Your task to perform on an android device: Do I have any events tomorrow? Image 0: 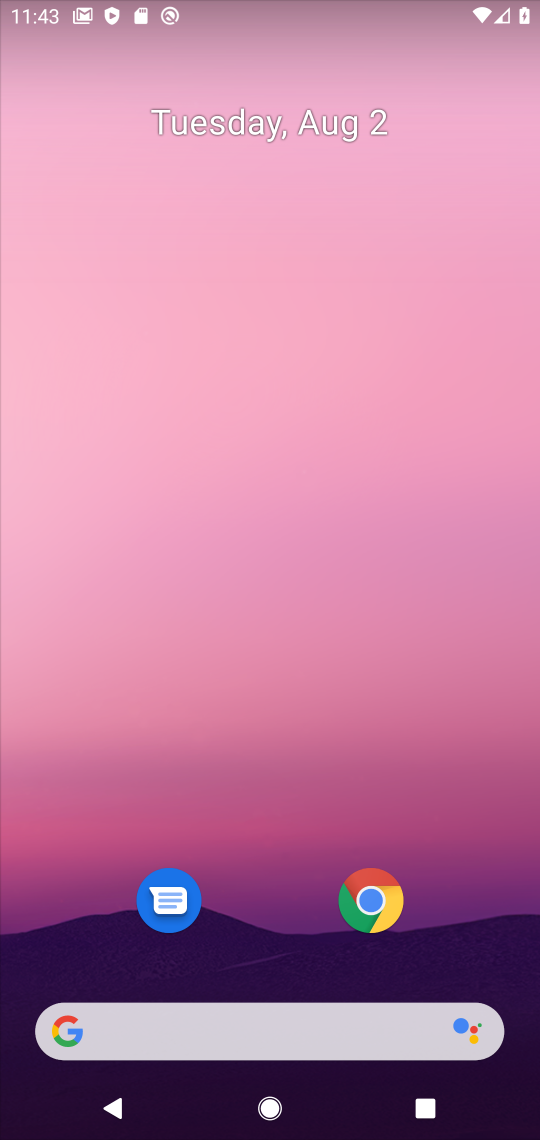
Step 0: drag from (231, 843) to (308, 83)
Your task to perform on an android device: Do I have any events tomorrow? Image 1: 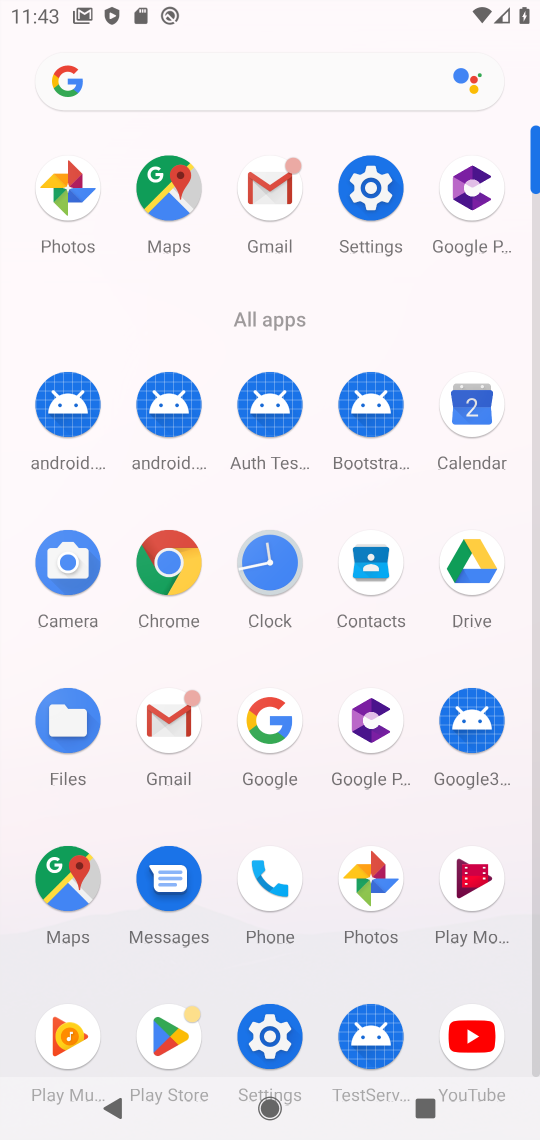
Step 1: click (482, 405)
Your task to perform on an android device: Do I have any events tomorrow? Image 2: 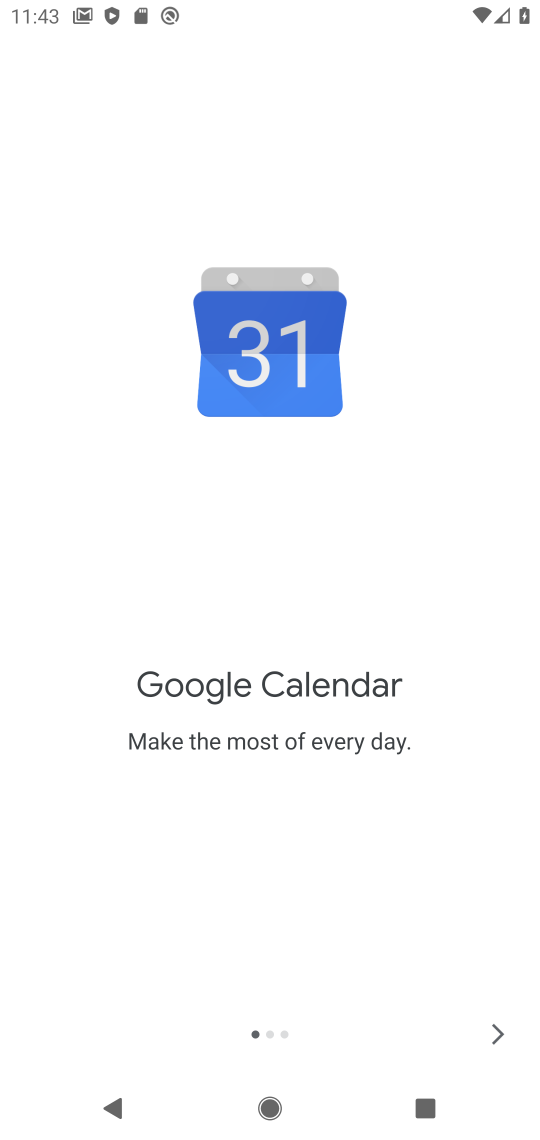
Step 2: click (513, 1041)
Your task to perform on an android device: Do I have any events tomorrow? Image 3: 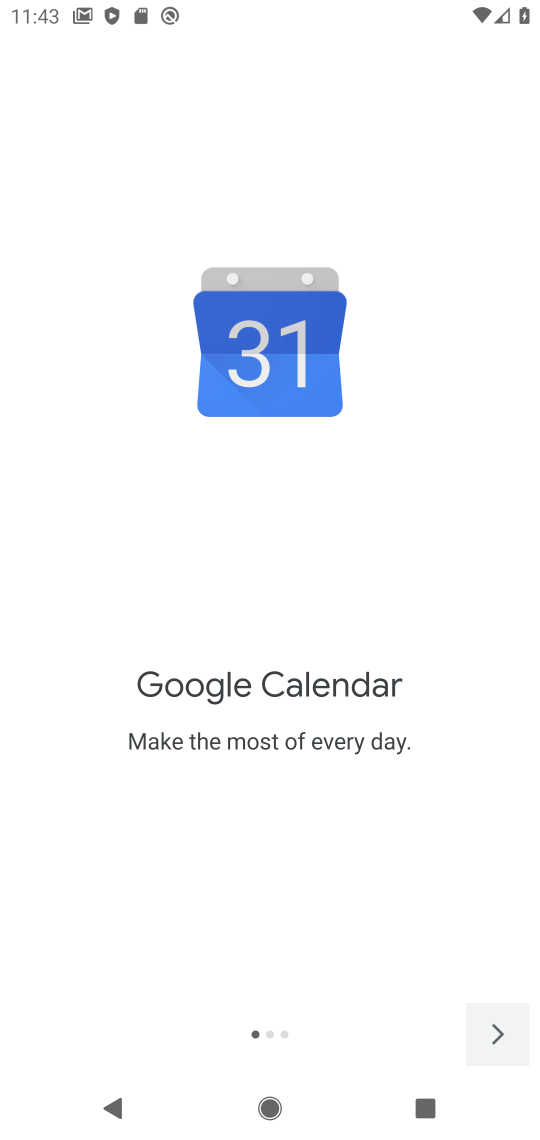
Step 3: click (510, 1026)
Your task to perform on an android device: Do I have any events tomorrow? Image 4: 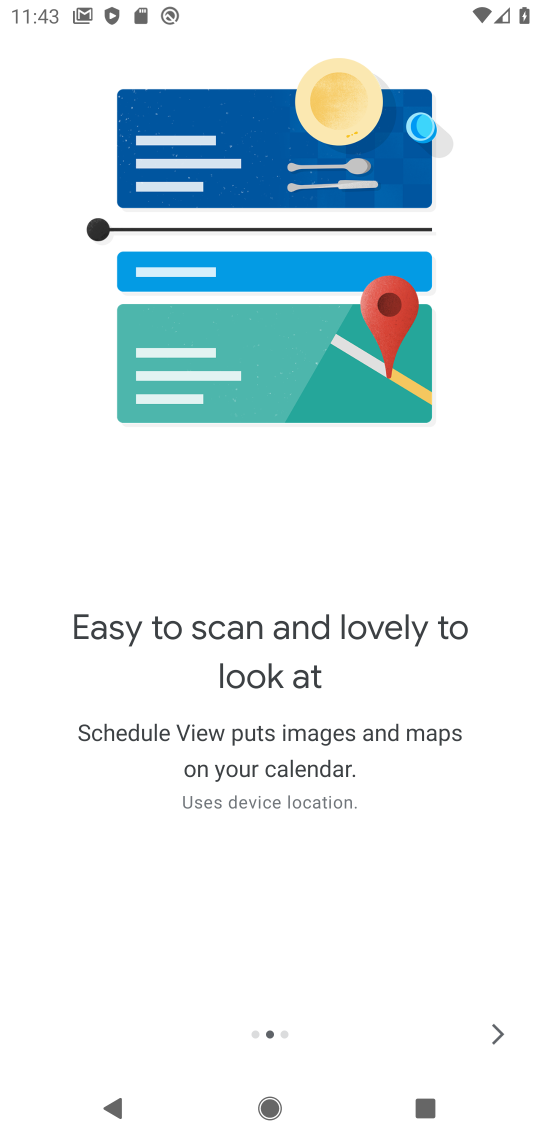
Step 4: click (510, 1025)
Your task to perform on an android device: Do I have any events tomorrow? Image 5: 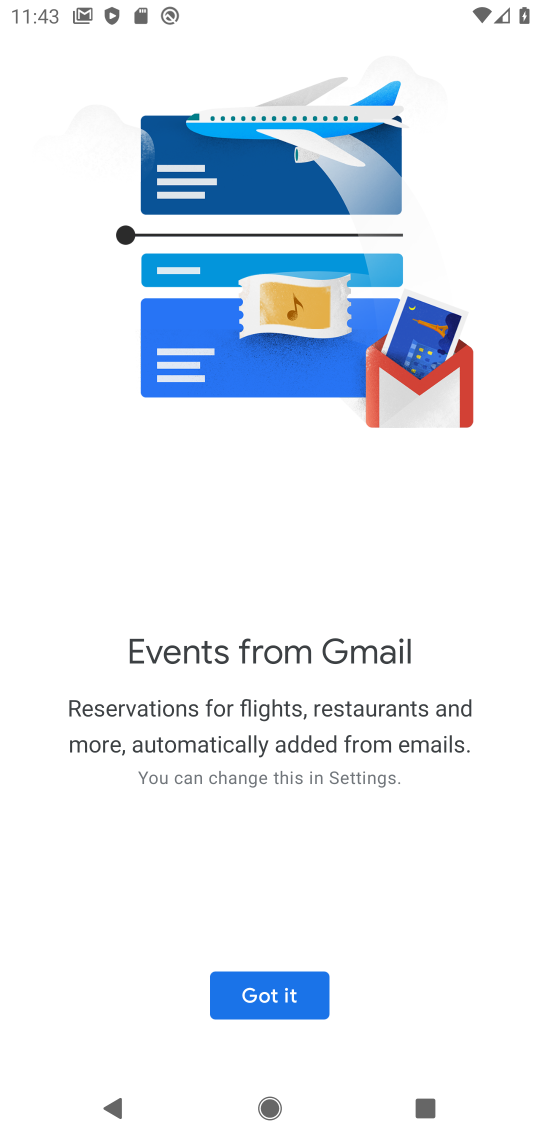
Step 5: click (273, 989)
Your task to perform on an android device: Do I have any events tomorrow? Image 6: 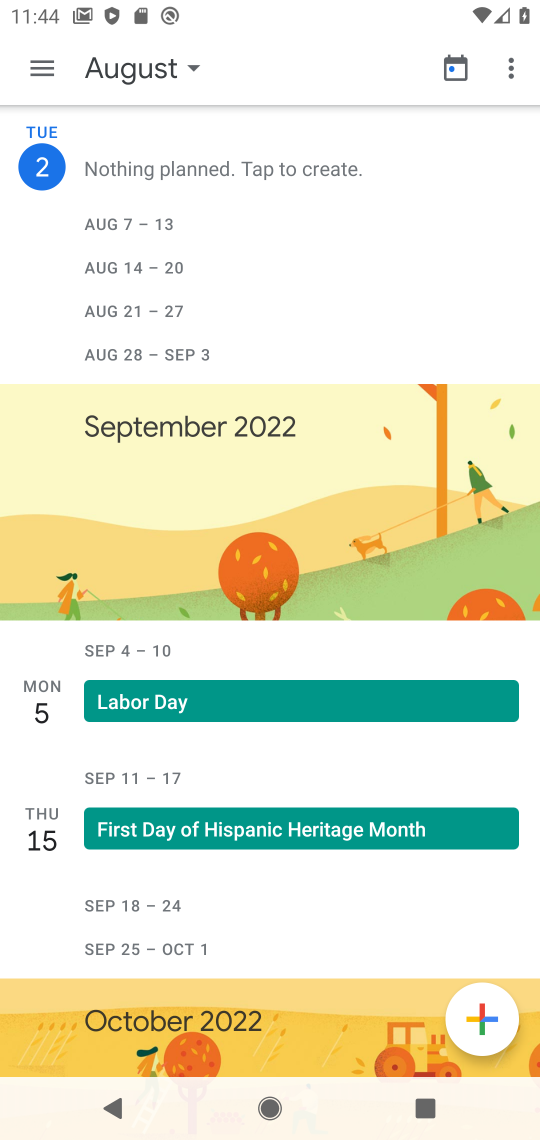
Step 6: click (162, 62)
Your task to perform on an android device: Do I have any events tomorrow? Image 7: 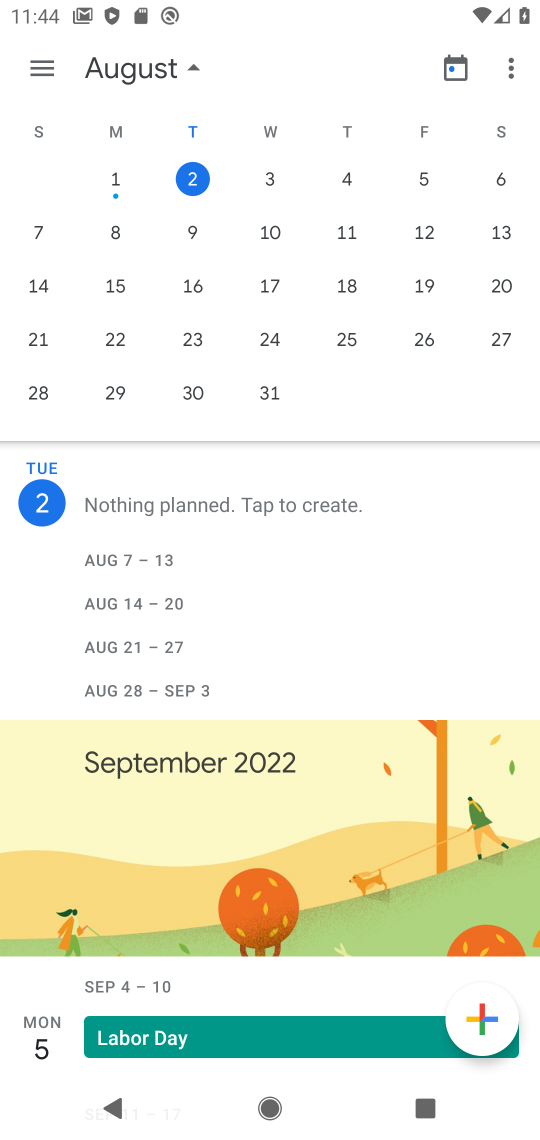
Step 7: click (268, 182)
Your task to perform on an android device: Do I have any events tomorrow? Image 8: 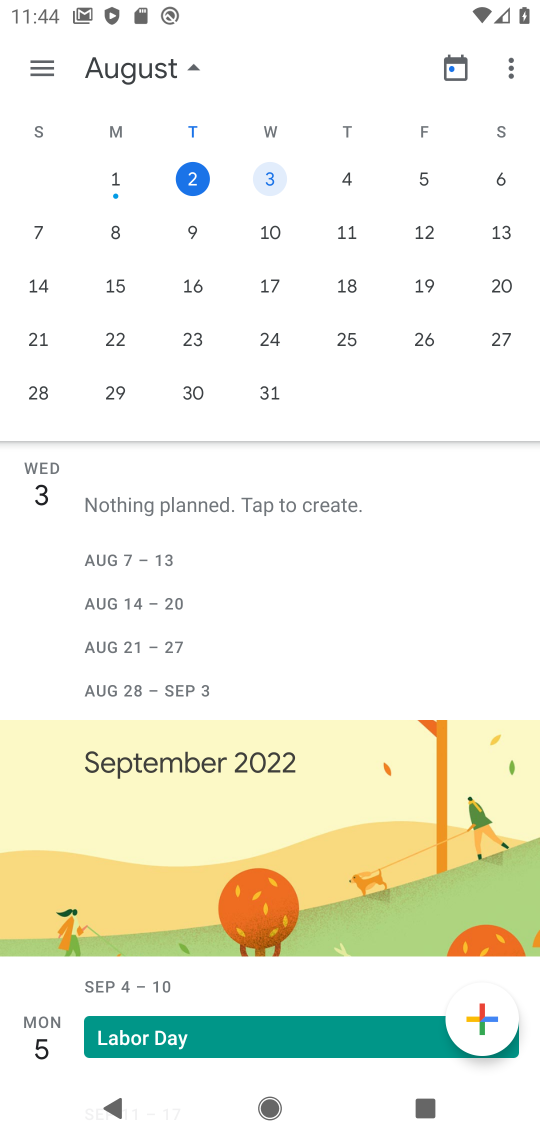
Step 8: task complete